Your task to perform on an android device: Search for Italian restaurants on Maps Image 0: 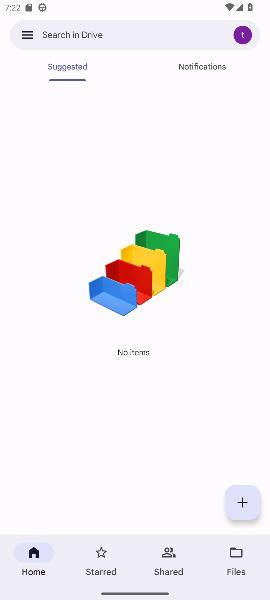
Step 0: press home button
Your task to perform on an android device: Search for Italian restaurants on Maps Image 1: 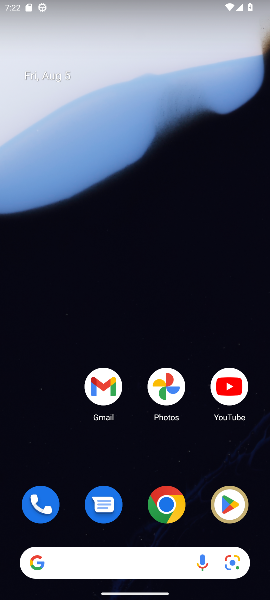
Step 1: drag from (138, 534) to (138, 120)
Your task to perform on an android device: Search for Italian restaurants on Maps Image 2: 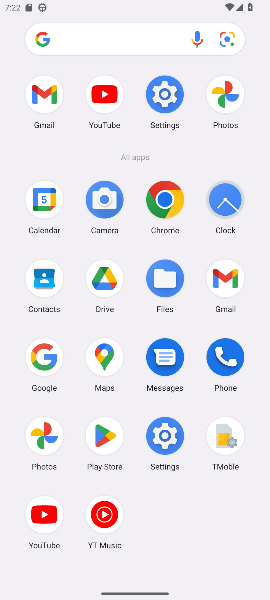
Step 2: click (103, 360)
Your task to perform on an android device: Search for Italian restaurants on Maps Image 3: 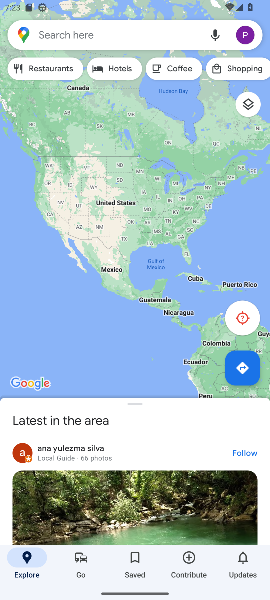
Step 3: click (78, 35)
Your task to perform on an android device: Search for Italian restaurants on Maps Image 4: 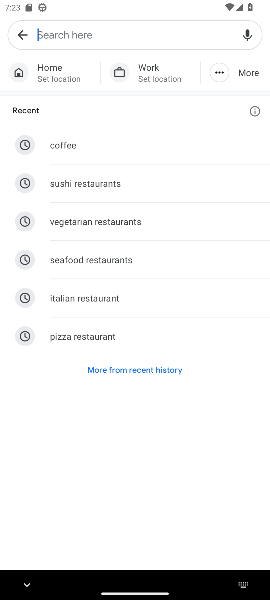
Step 4: click (87, 299)
Your task to perform on an android device: Search for Italian restaurants on Maps Image 5: 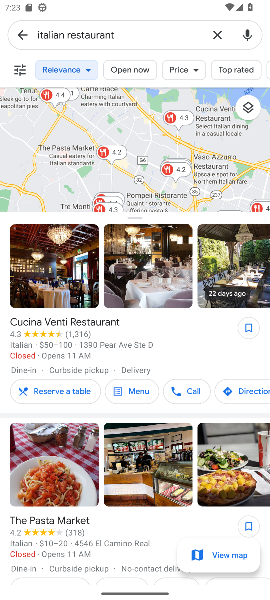
Step 5: task complete